Your task to perform on an android device: check battery use Image 0: 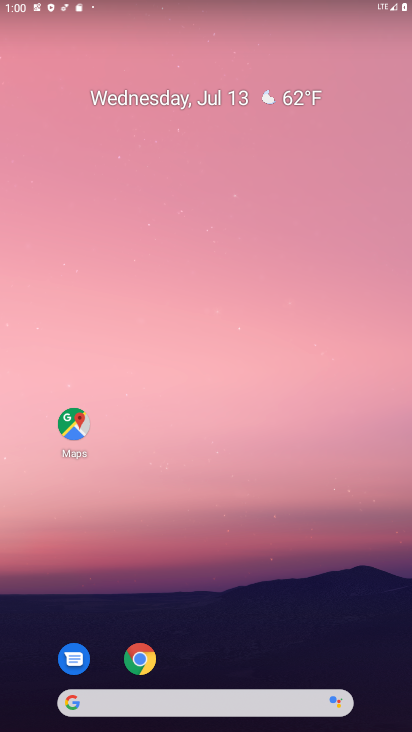
Step 0: drag from (231, 720) to (236, 176)
Your task to perform on an android device: check battery use Image 1: 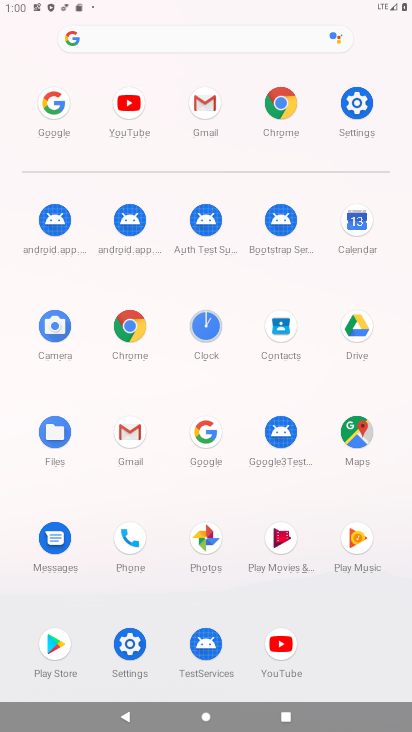
Step 1: click (354, 97)
Your task to perform on an android device: check battery use Image 2: 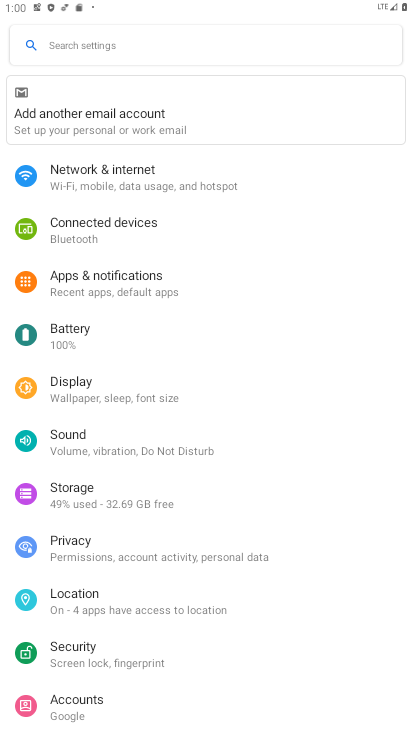
Step 2: click (77, 329)
Your task to perform on an android device: check battery use Image 3: 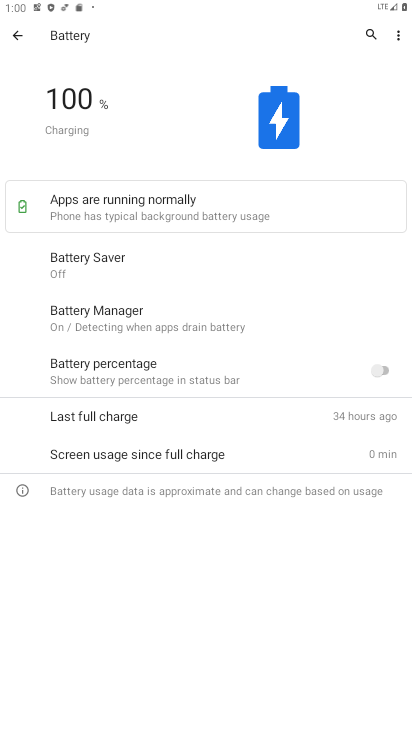
Step 3: click (397, 36)
Your task to perform on an android device: check battery use Image 4: 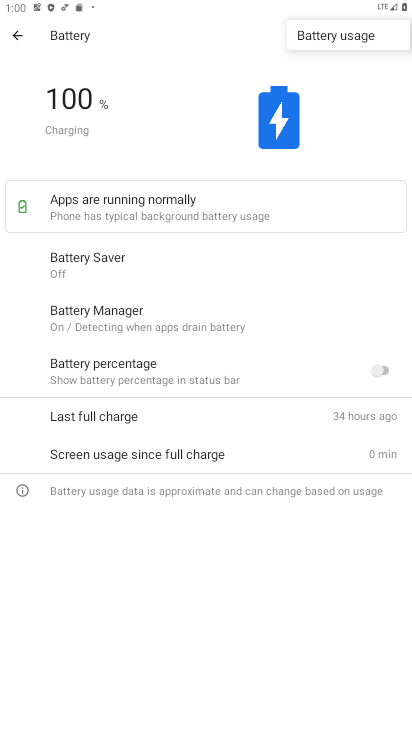
Step 4: click (351, 35)
Your task to perform on an android device: check battery use Image 5: 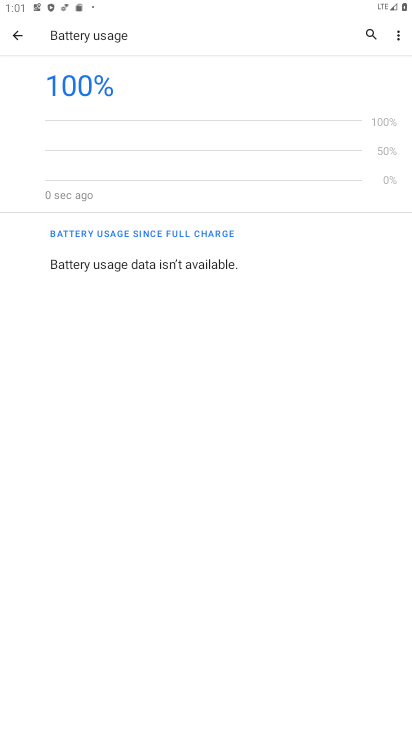
Step 5: task complete